Your task to perform on an android device: Search for Italian restaurants on Maps Image 0: 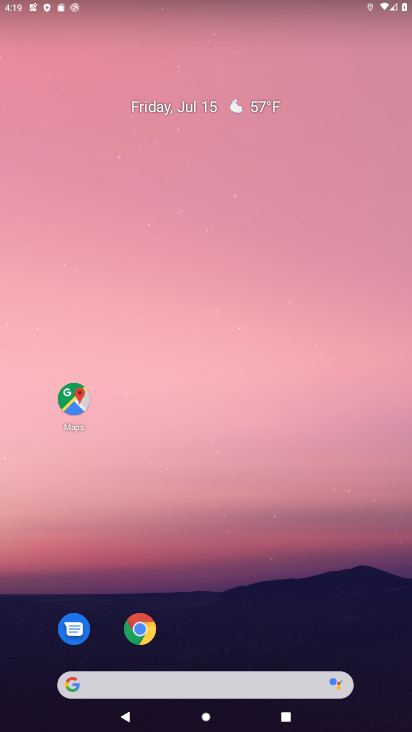
Step 0: press home button
Your task to perform on an android device: Search for Italian restaurants on Maps Image 1: 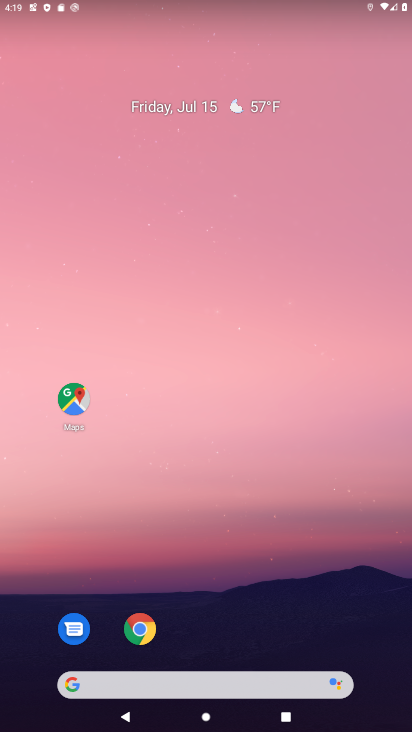
Step 1: drag from (229, 644) to (379, 28)
Your task to perform on an android device: Search for Italian restaurants on Maps Image 2: 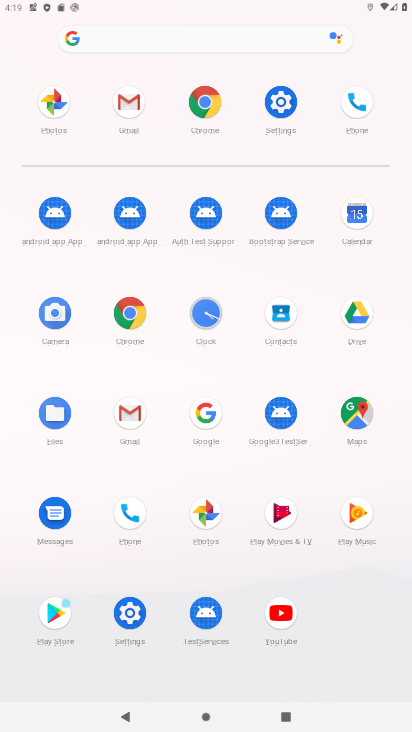
Step 2: click (356, 420)
Your task to perform on an android device: Search for Italian restaurants on Maps Image 3: 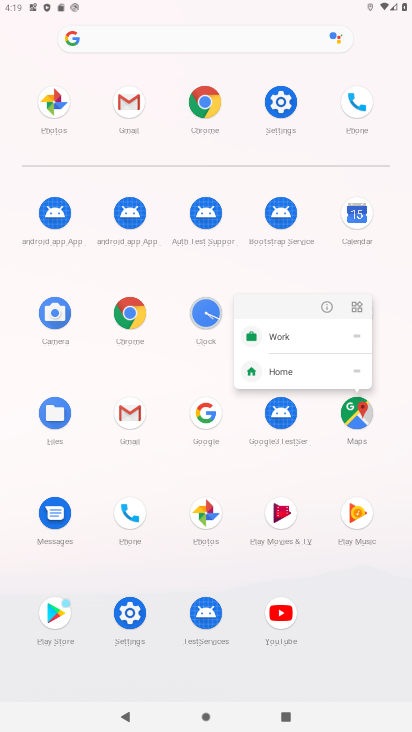
Step 3: click (346, 414)
Your task to perform on an android device: Search for Italian restaurants on Maps Image 4: 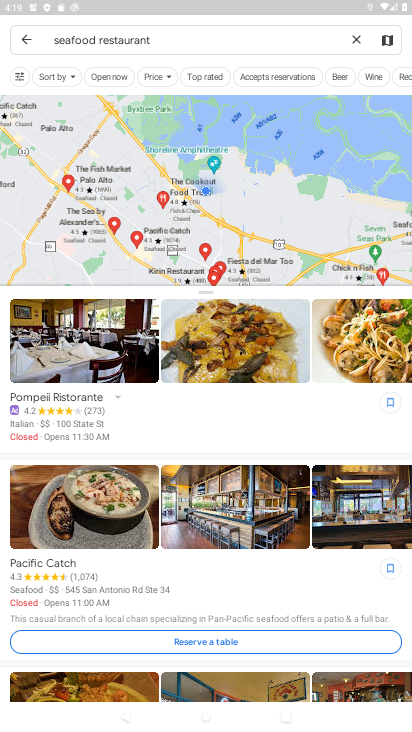
Step 4: click (355, 42)
Your task to perform on an android device: Search for Italian restaurants on Maps Image 5: 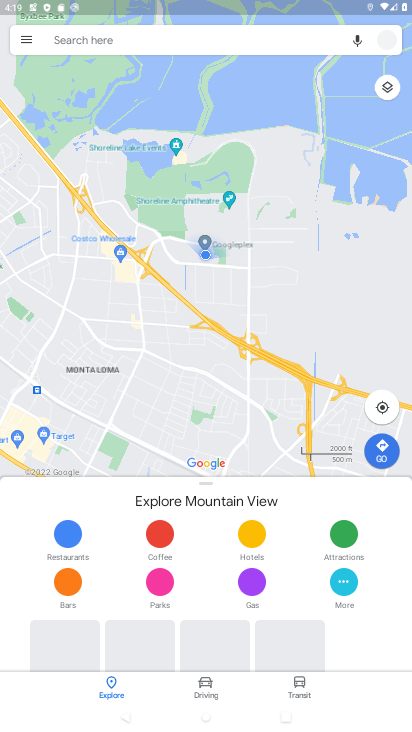
Step 5: click (201, 35)
Your task to perform on an android device: Search for Italian restaurants on Maps Image 6: 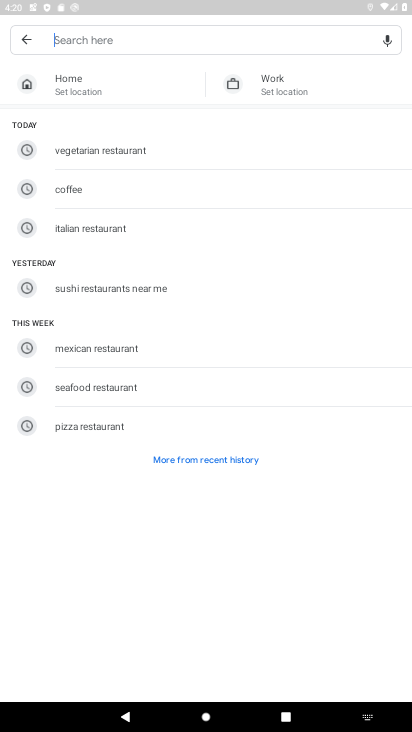
Step 6: click (92, 229)
Your task to perform on an android device: Search for Italian restaurants on Maps Image 7: 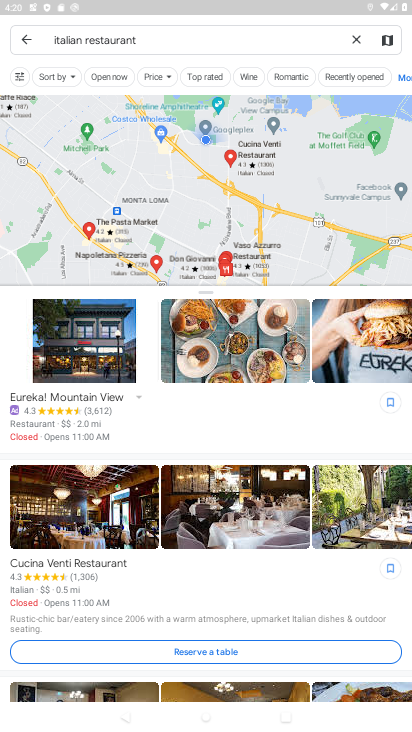
Step 7: task complete